Your task to perform on an android device: When is my next appointment? Image 0: 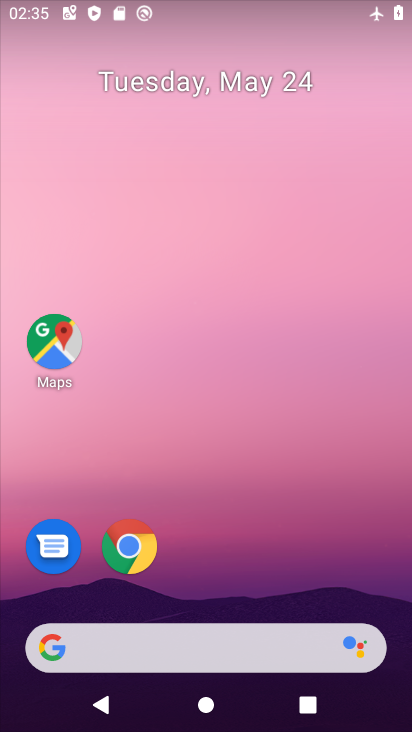
Step 0: drag from (181, 599) to (186, 370)
Your task to perform on an android device: When is my next appointment? Image 1: 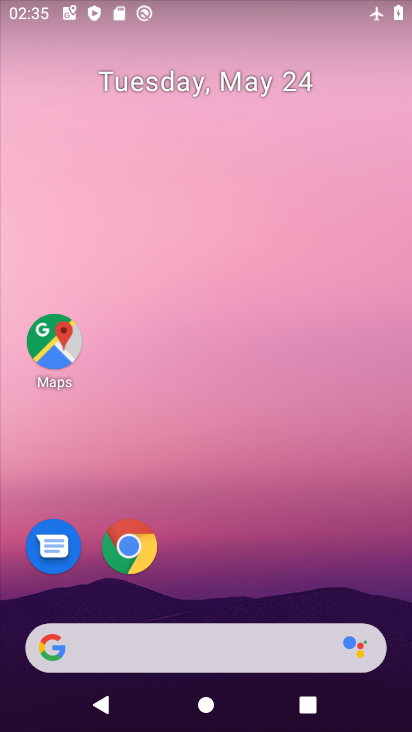
Step 1: drag from (182, 614) to (244, 362)
Your task to perform on an android device: When is my next appointment? Image 2: 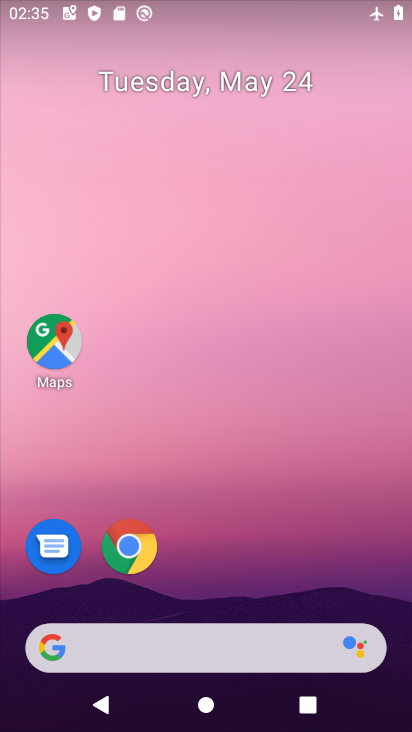
Step 2: drag from (180, 581) to (232, 380)
Your task to perform on an android device: When is my next appointment? Image 3: 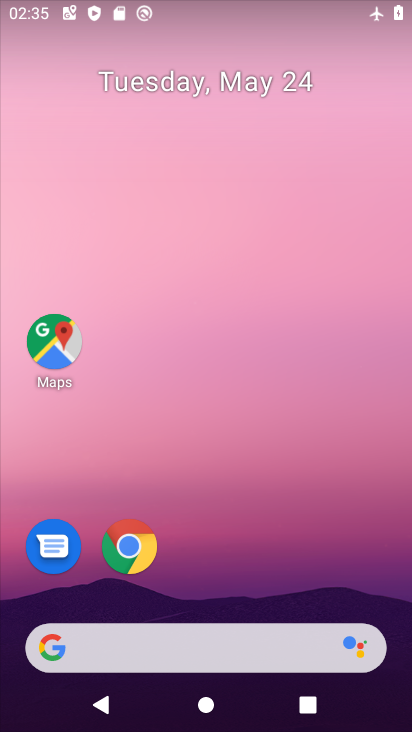
Step 3: drag from (208, 622) to (239, 401)
Your task to perform on an android device: When is my next appointment? Image 4: 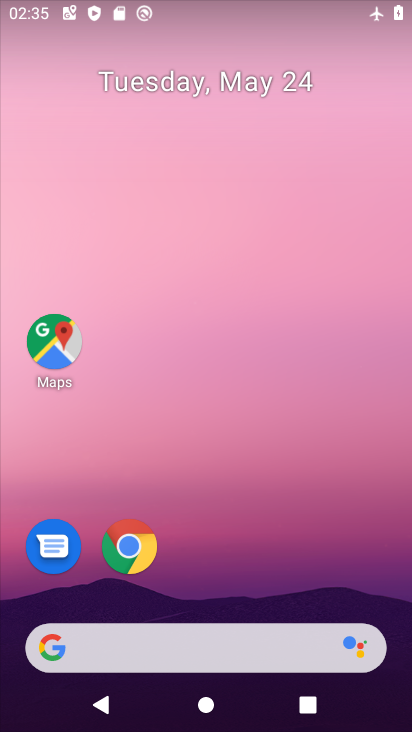
Step 4: drag from (188, 551) to (195, 261)
Your task to perform on an android device: When is my next appointment? Image 5: 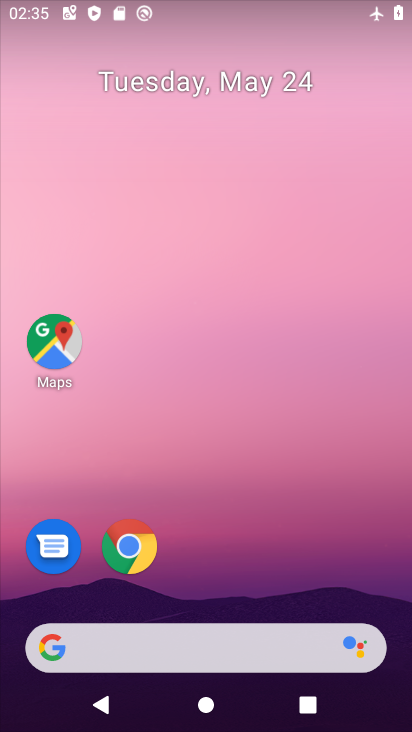
Step 5: drag from (235, 586) to (294, 173)
Your task to perform on an android device: When is my next appointment? Image 6: 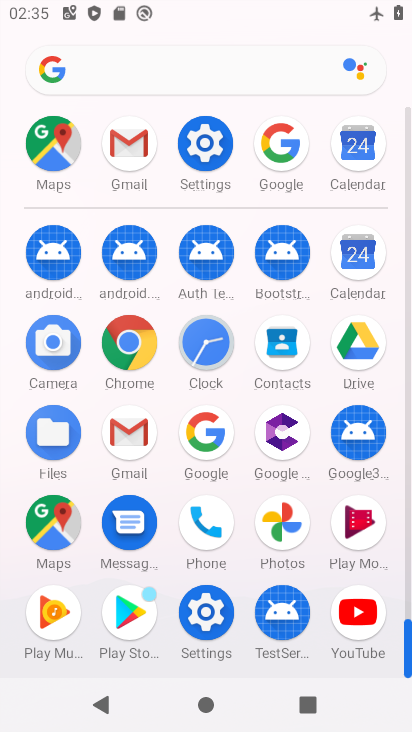
Step 6: click (347, 256)
Your task to perform on an android device: When is my next appointment? Image 7: 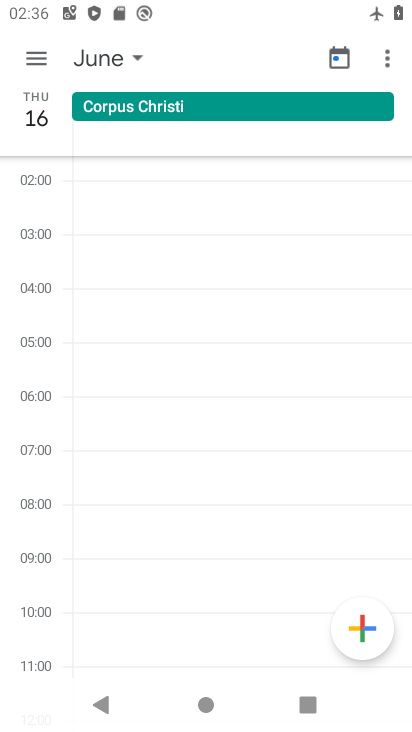
Step 7: click (137, 46)
Your task to perform on an android device: When is my next appointment? Image 8: 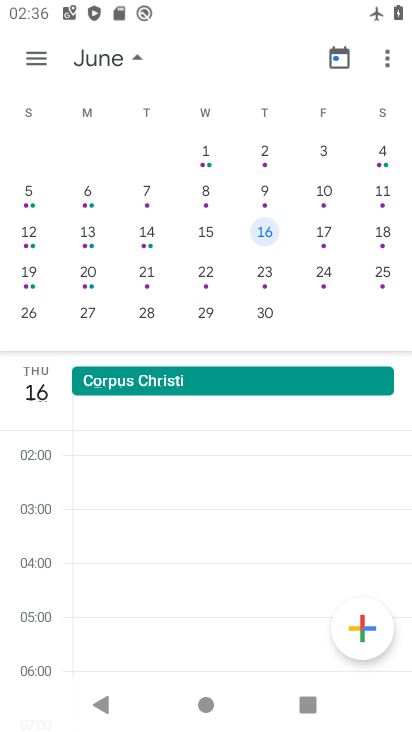
Step 8: drag from (28, 245) to (344, 237)
Your task to perform on an android device: When is my next appointment? Image 9: 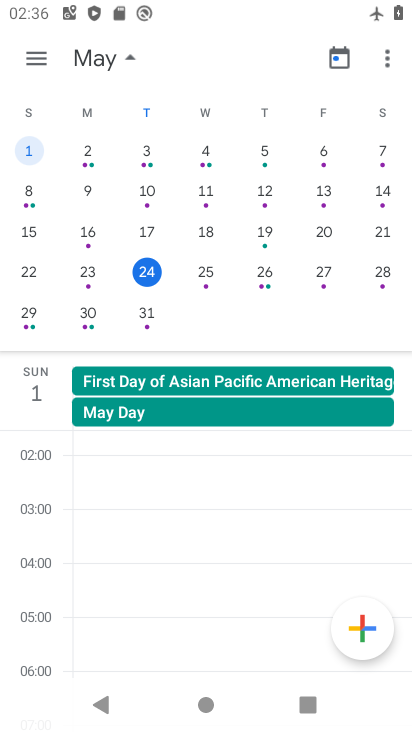
Step 9: click (146, 267)
Your task to perform on an android device: When is my next appointment? Image 10: 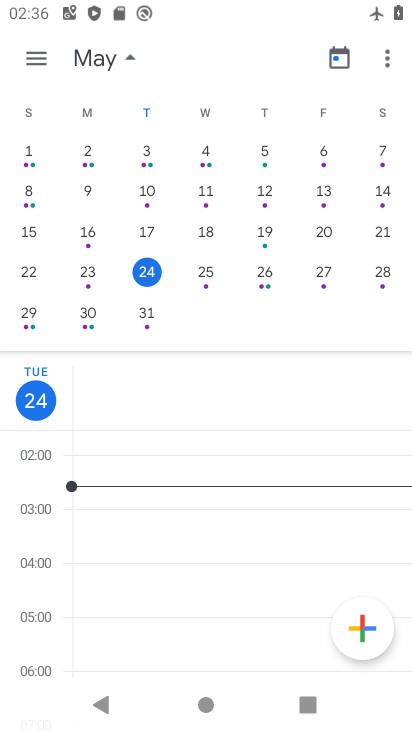
Step 10: drag from (204, 483) to (220, 361)
Your task to perform on an android device: When is my next appointment? Image 11: 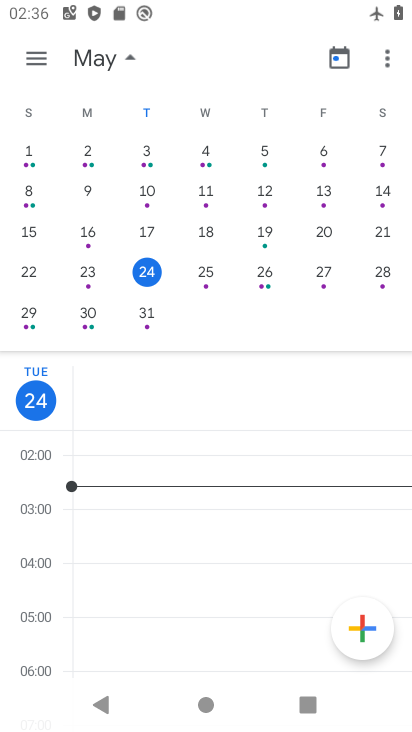
Step 11: click (153, 273)
Your task to perform on an android device: When is my next appointment? Image 12: 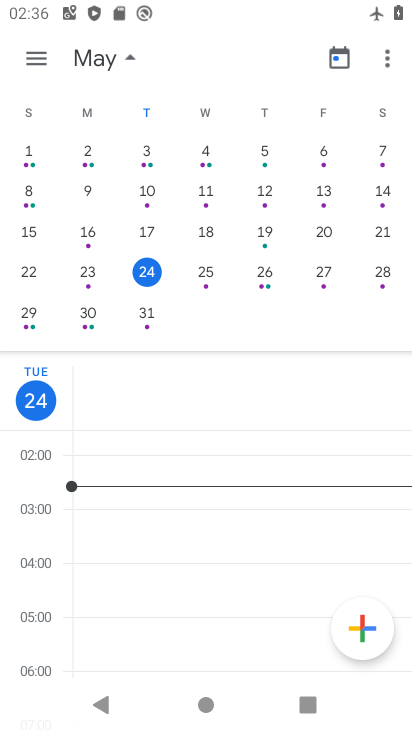
Step 12: task complete